Your task to perform on an android device: Go to Google maps Image 0: 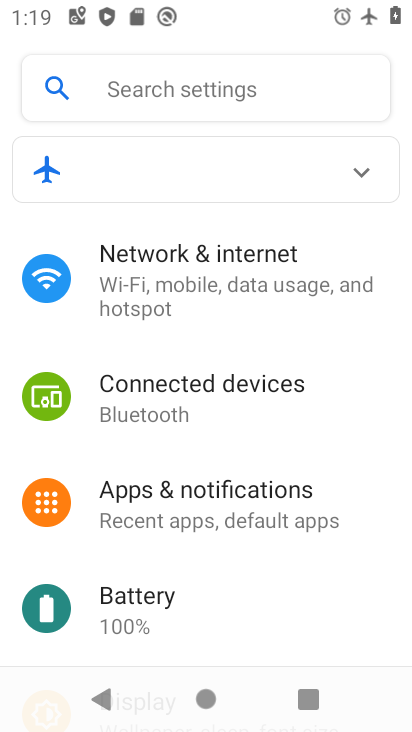
Step 0: press home button
Your task to perform on an android device: Go to Google maps Image 1: 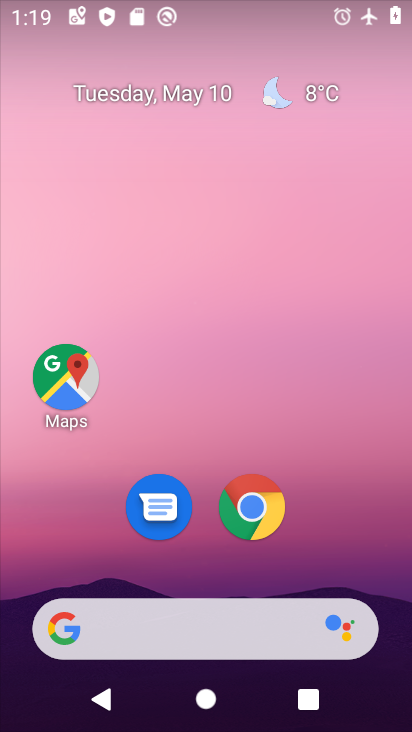
Step 1: drag from (233, 727) to (227, 192)
Your task to perform on an android device: Go to Google maps Image 2: 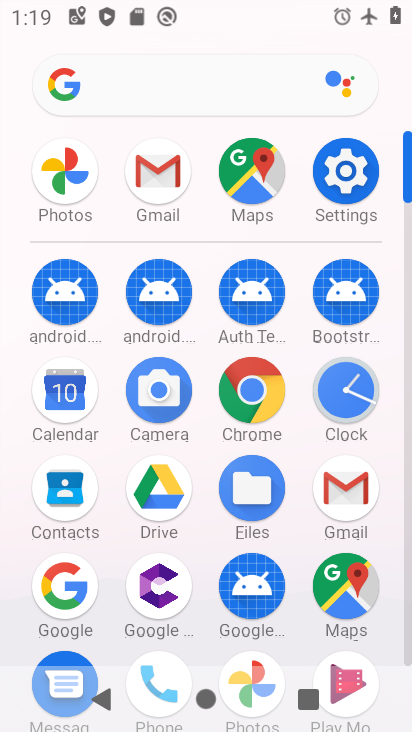
Step 2: click (349, 587)
Your task to perform on an android device: Go to Google maps Image 3: 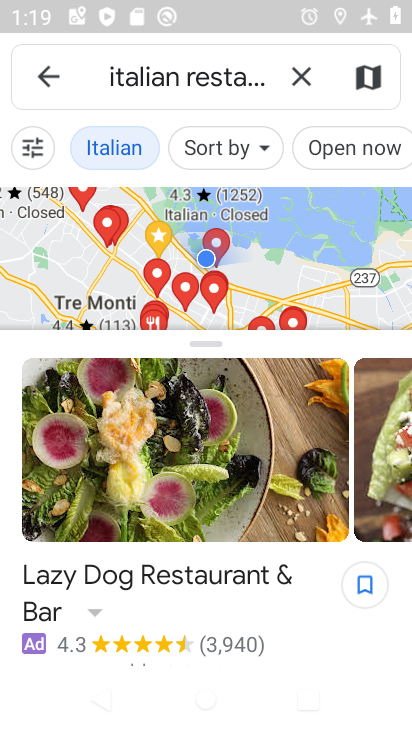
Step 3: task complete